Your task to perform on an android device: turn off smart reply in the gmail app Image 0: 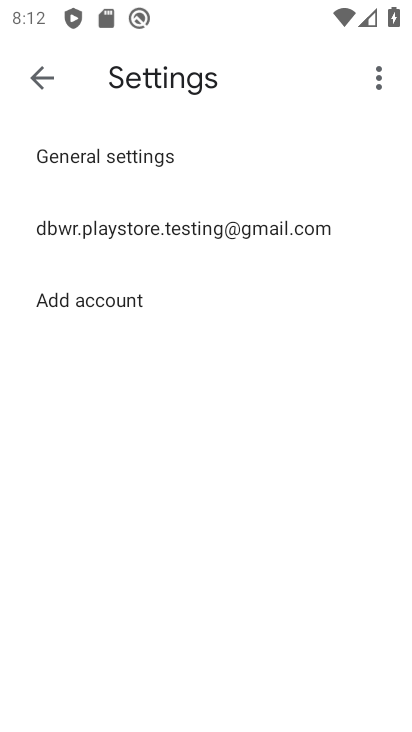
Step 0: press home button
Your task to perform on an android device: turn off smart reply in the gmail app Image 1: 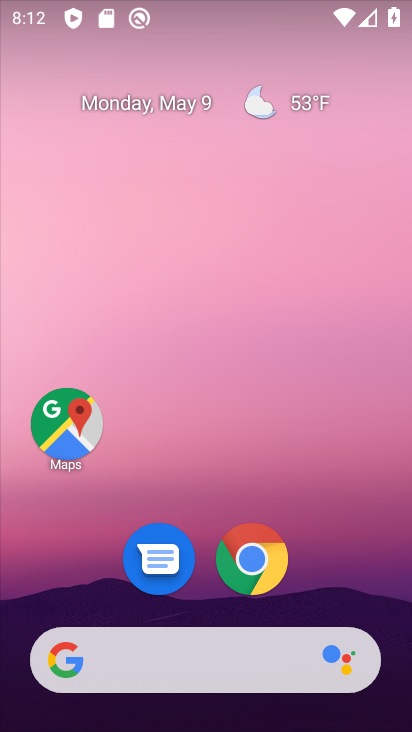
Step 1: drag from (384, 592) to (200, 70)
Your task to perform on an android device: turn off smart reply in the gmail app Image 2: 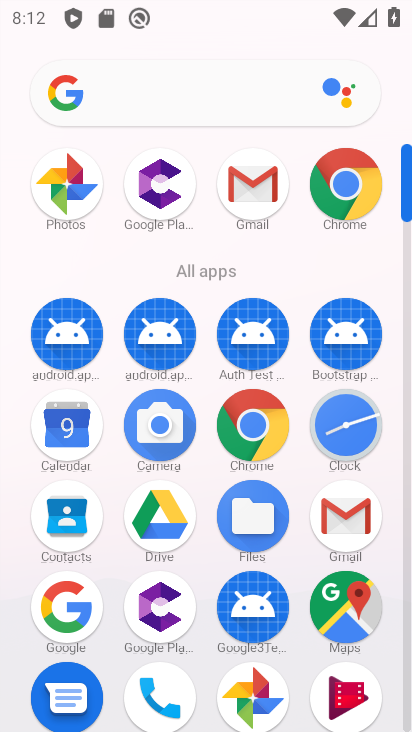
Step 2: click (342, 511)
Your task to perform on an android device: turn off smart reply in the gmail app Image 3: 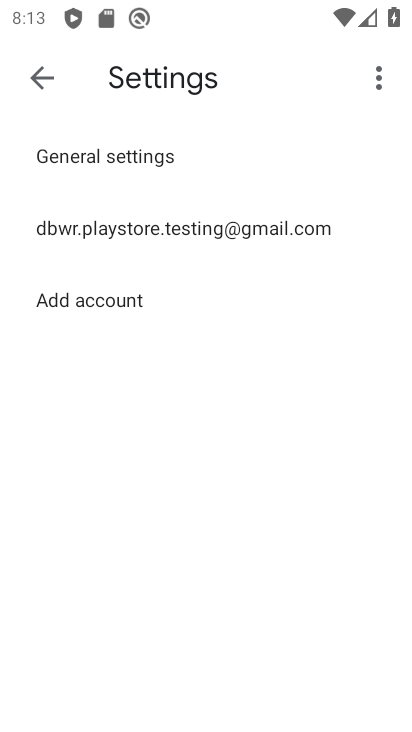
Step 3: click (128, 230)
Your task to perform on an android device: turn off smart reply in the gmail app Image 4: 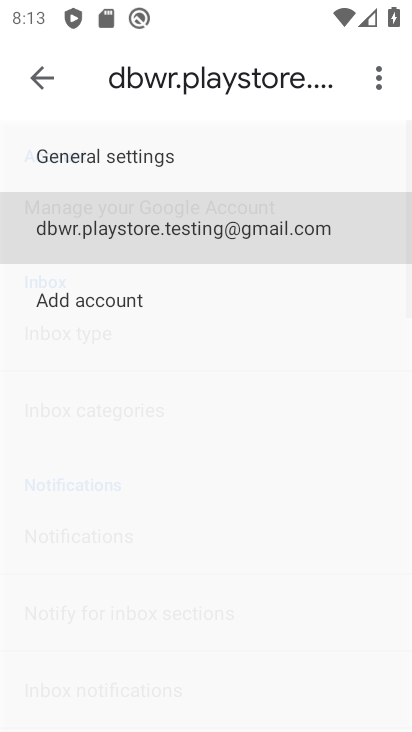
Step 4: click (128, 230)
Your task to perform on an android device: turn off smart reply in the gmail app Image 5: 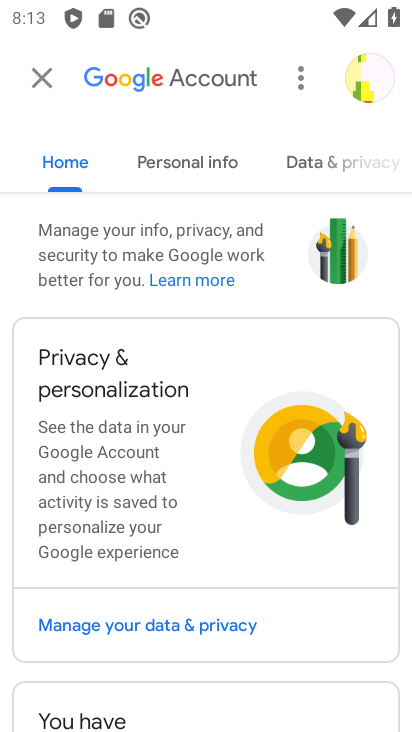
Step 5: click (41, 83)
Your task to perform on an android device: turn off smart reply in the gmail app Image 6: 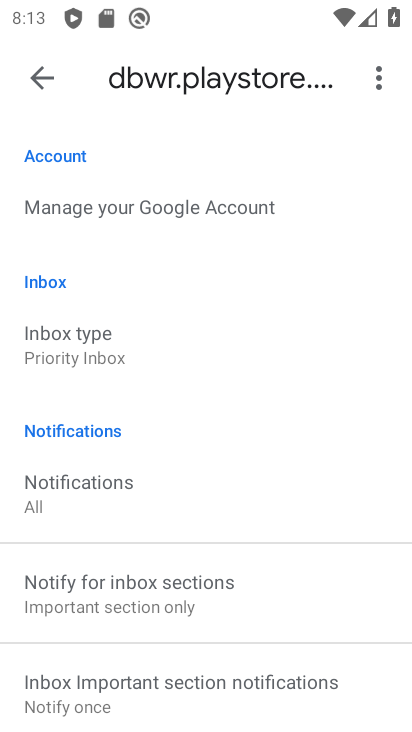
Step 6: drag from (237, 612) to (170, 188)
Your task to perform on an android device: turn off smart reply in the gmail app Image 7: 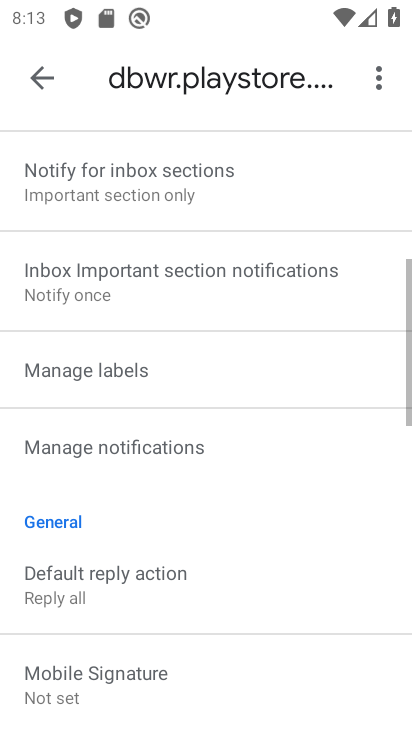
Step 7: drag from (239, 396) to (239, 71)
Your task to perform on an android device: turn off smart reply in the gmail app Image 8: 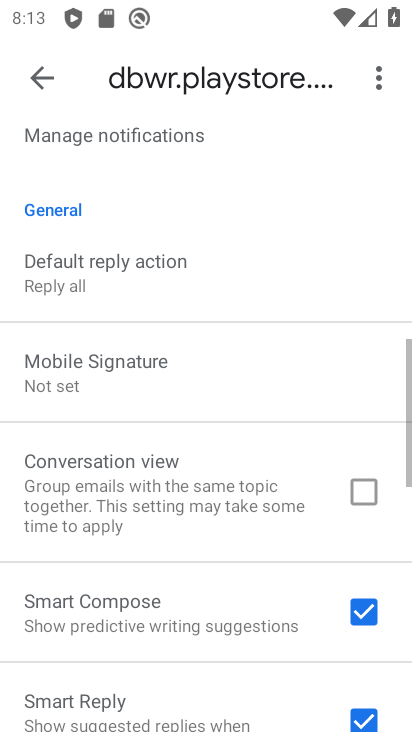
Step 8: drag from (214, 519) to (190, 71)
Your task to perform on an android device: turn off smart reply in the gmail app Image 9: 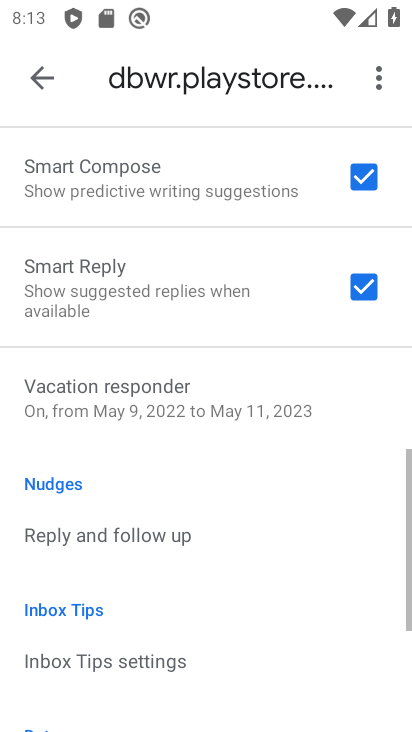
Step 9: drag from (227, 484) to (210, 159)
Your task to perform on an android device: turn off smart reply in the gmail app Image 10: 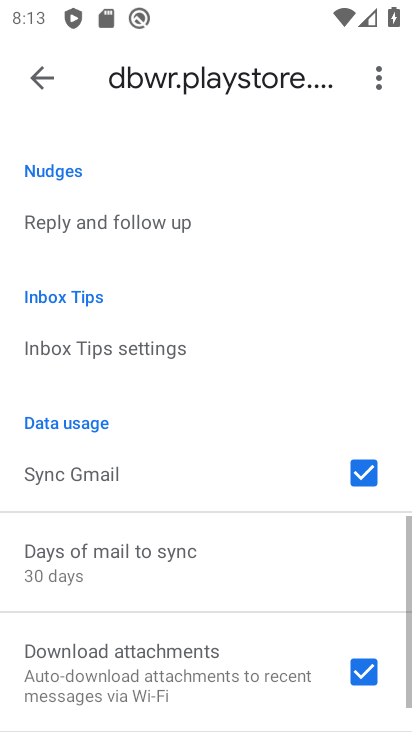
Step 10: click (151, 45)
Your task to perform on an android device: turn off smart reply in the gmail app Image 11: 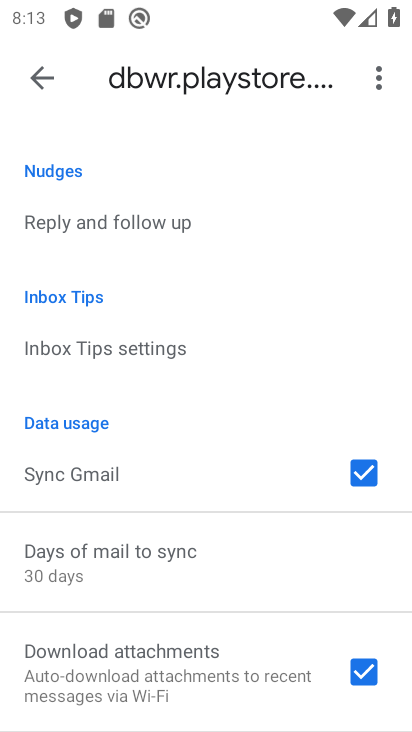
Step 11: click (212, 204)
Your task to perform on an android device: turn off smart reply in the gmail app Image 12: 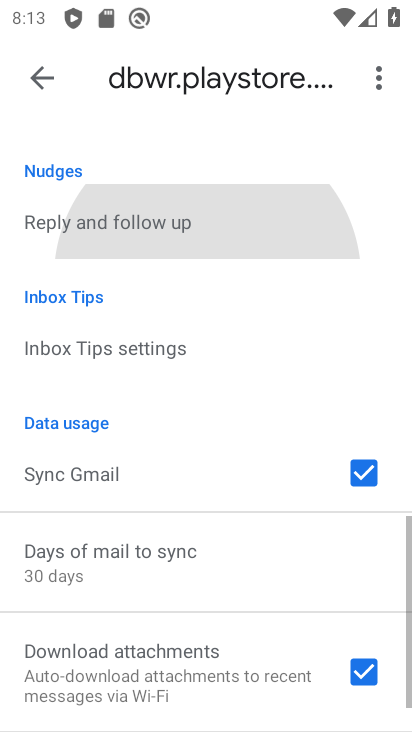
Step 12: drag from (260, 586) to (251, 231)
Your task to perform on an android device: turn off smart reply in the gmail app Image 13: 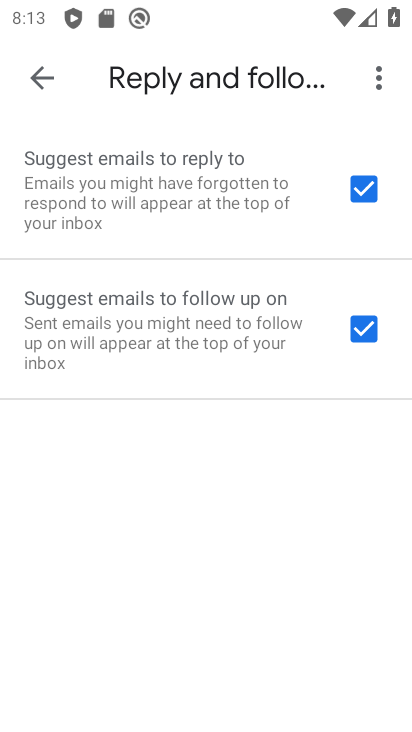
Step 13: click (41, 77)
Your task to perform on an android device: turn off smart reply in the gmail app Image 14: 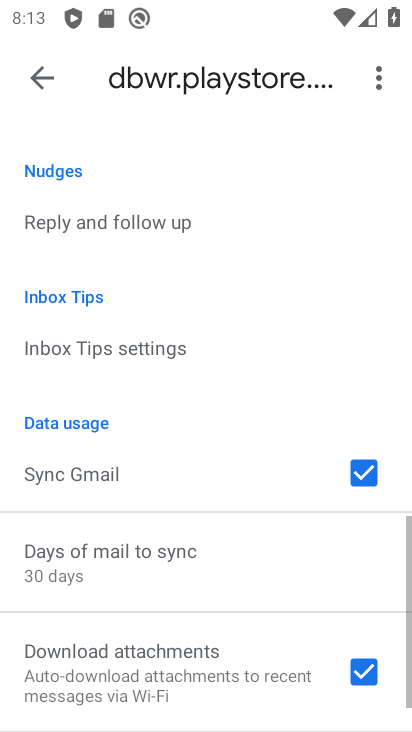
Step 14: drag from (202, 483) to (176, 68)
Your task to perform on an android device: turn off smart reply in the gmail app Image 15: 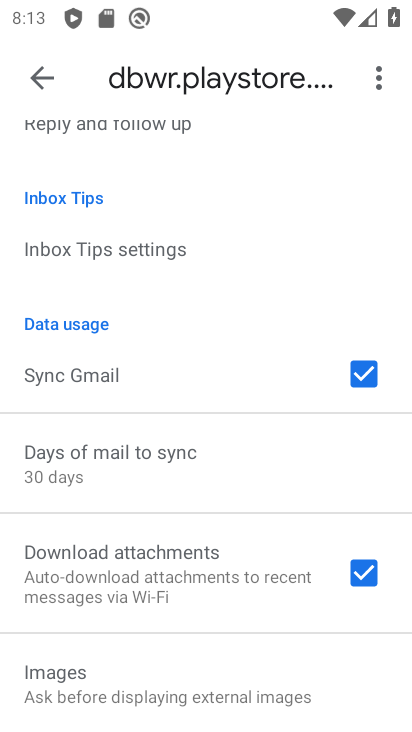
Step 15: drag from (232, 623) to (189, 182)
Your task to perform on an android device: turn off smart reply in the gmail app Image 16: 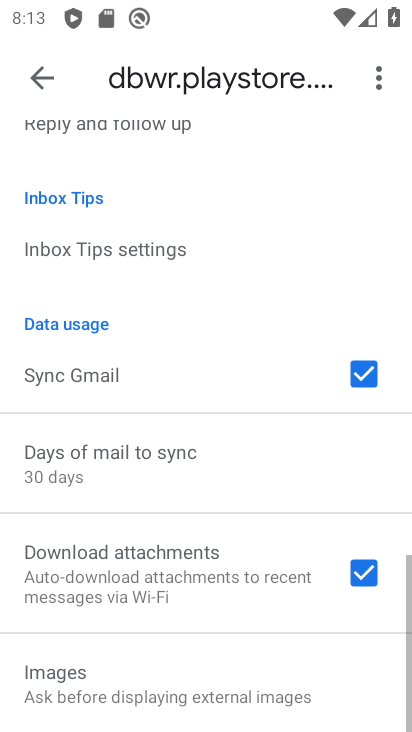
Step 16: drag from (177, 505) to (164, 71)
Your task to perform on an android device: turn off smart reply in the gmail app Image 17: 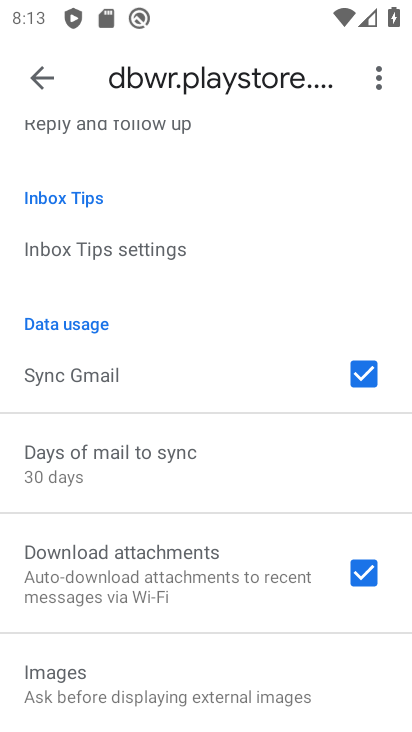
Step 17: drag from (122, 282) to (197, 624)
Your task to perform on an android device: turn off smart reply in the gmail app Image 18: 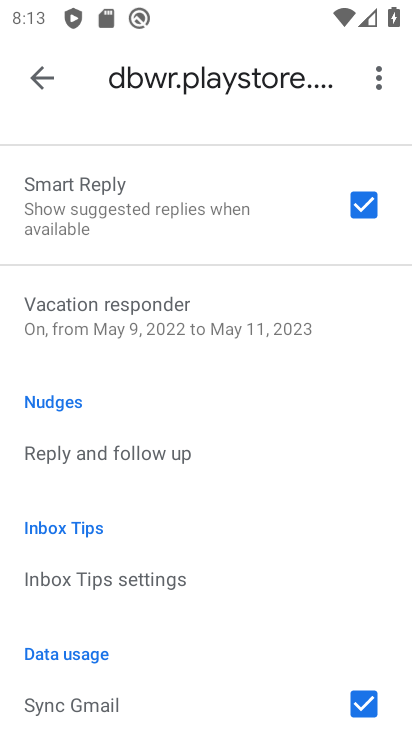
Step 18: click (365, 199)
Your task to perform on an android device: turn off smart reply in the gmail app Image 19: 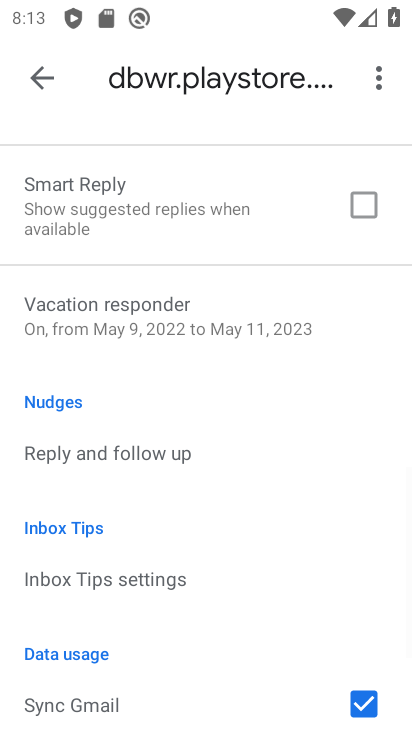
Step 19: task complete